Your task to perform on an android device: Do I have any events this weekend? Image 0: 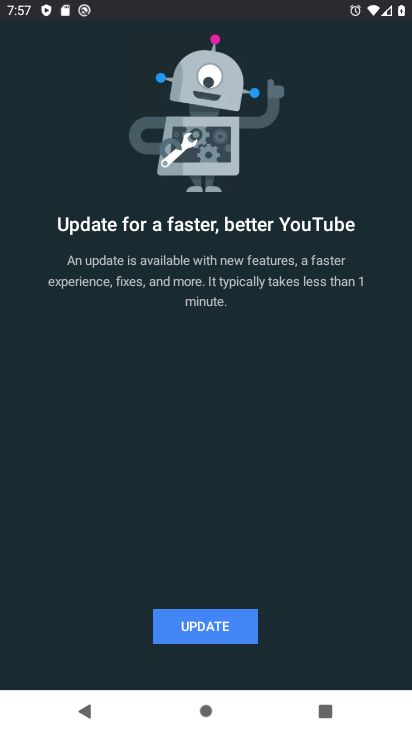
Step 0: press back button
Your task to perform on an android device: Do I have any events this weekend? Image 1: 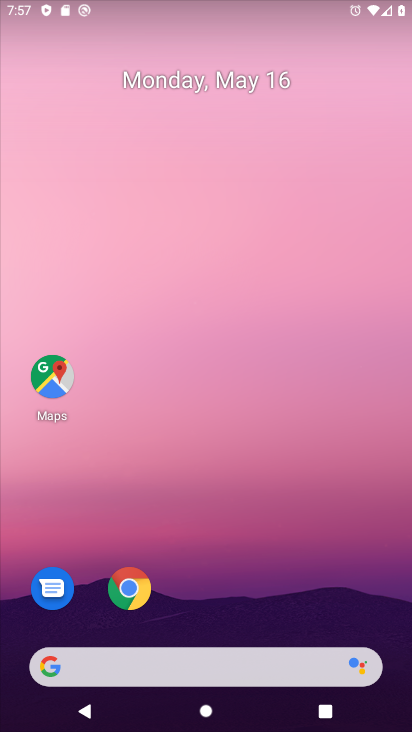
Step 1: drag from (323, 725) to (89, 76)
Your task to perform on an android device: Do I have any events this weekend? Image 2: 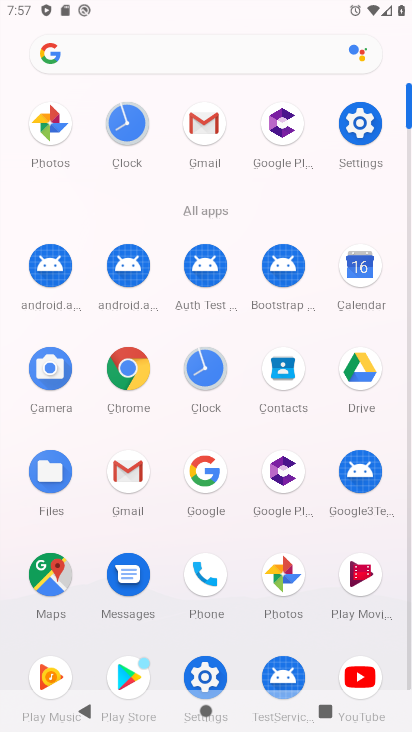
Step 2: click (362, 271)
Your task to perform on an android device: Do I have any events this weekend? Image 3: 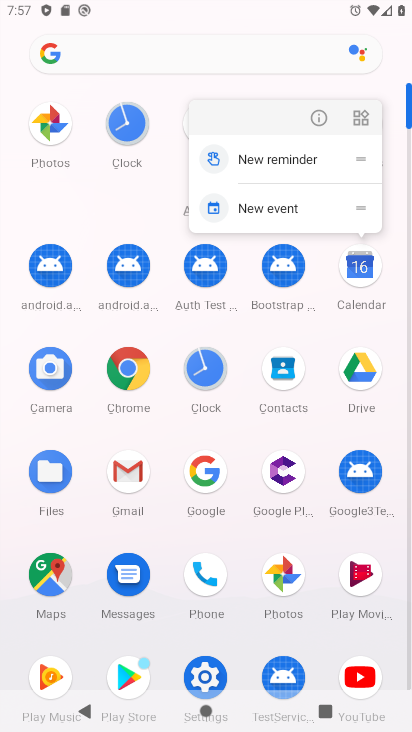
Step 3: click (357, 272)
Your task to perform on an android device: Do I have any events this weekend? Image 4: 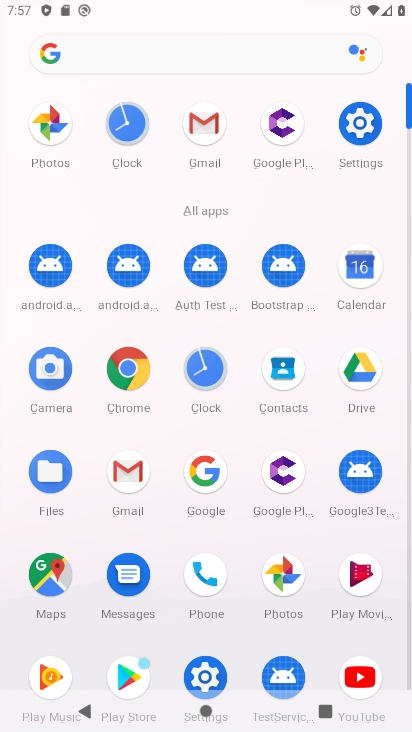
Step 4: click (357, 272)
Your task to perform on an android device: Do I have any events this weekend? Image 5: 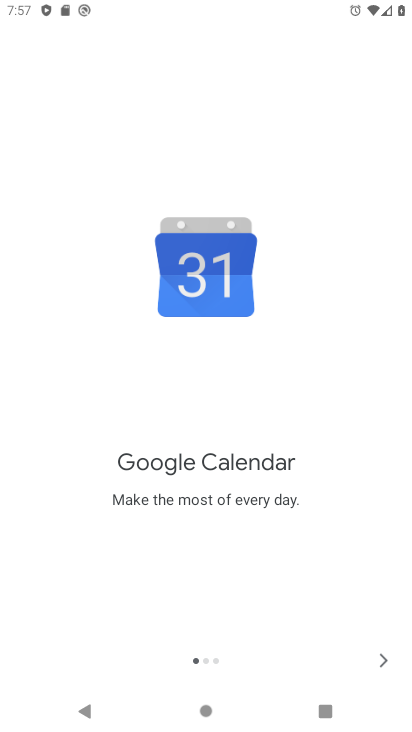
Step 5: click (381, 662)
Your task to perform on an android device: Do I have any events this weekend? Image 6: 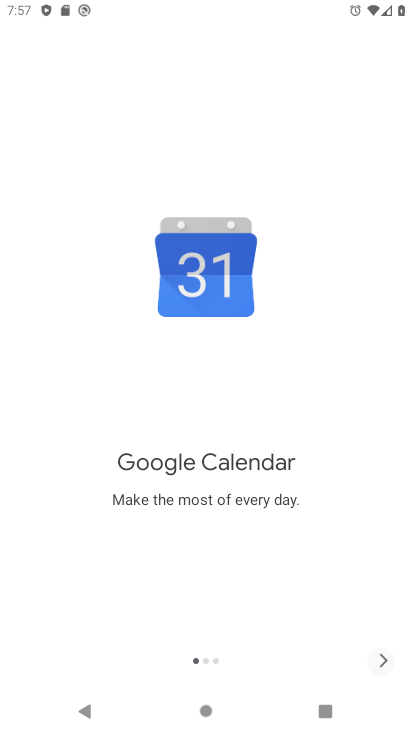
Step 6: click (381, 662)
Your task to perform on an android device: Do I have any events this weekend? Image 7: 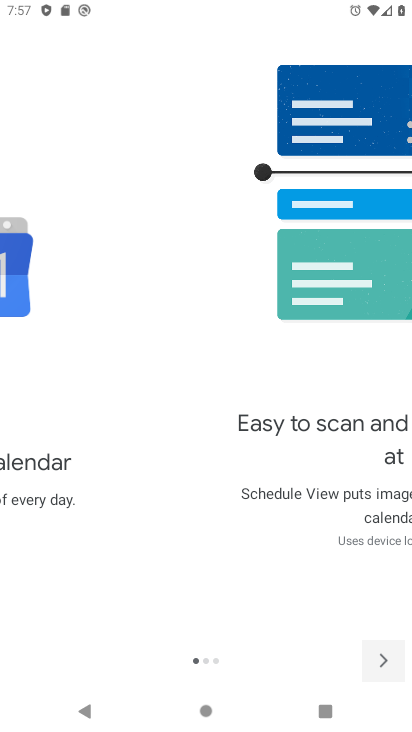
Step 7: click (381, 662)
Your task to perform on an android device: Do I have any events this weekend? Image 8: 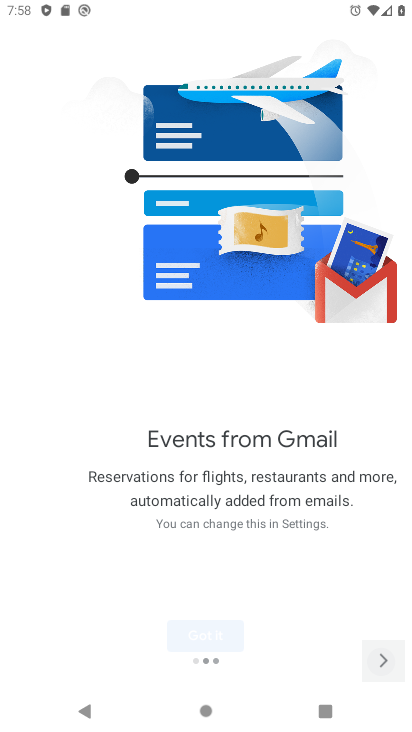
Step 8: click (381, 662)
Your task to perform on an android device: Do I have any events this weekend? Image 9: 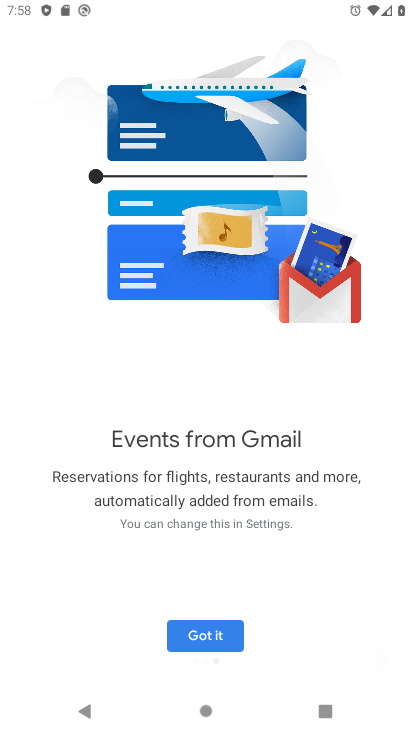
Step 9: click (381, 662)
Your task to perform on an android device: Do I have any events this weekend? Image 10: 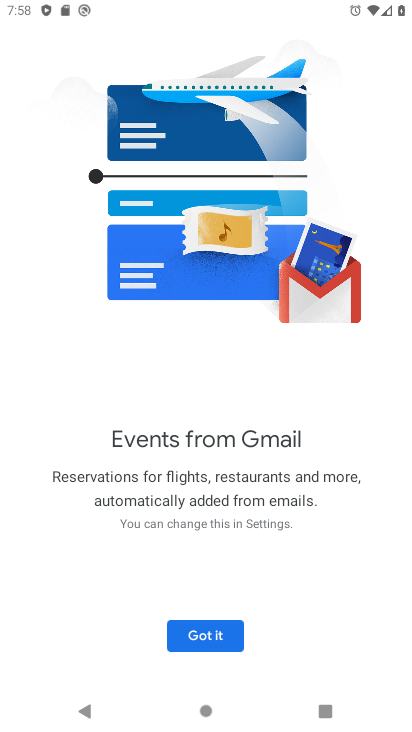
Step 10: click (381, 662)
Your task to perform on an android device: Do I have any events this weekend? Image 11: 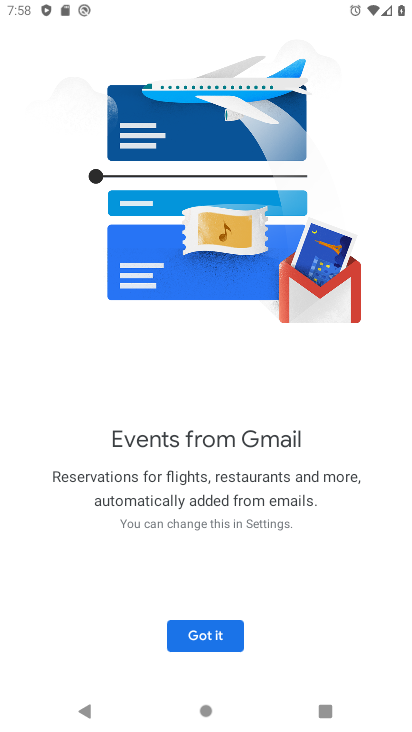
Step 11: click (208, 626)
Your task to perform on an android device: Do I have any events this weekend? Image 12: 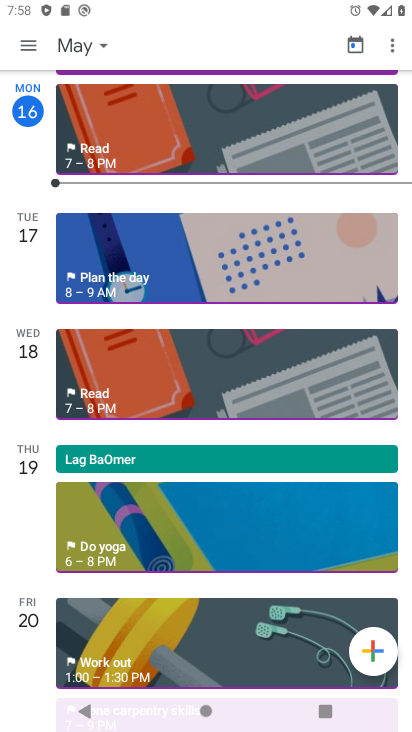
Step 12: drag from (128, 658) to (51, 305)
Your task to perform on an android device: Do I have any events this weekend? Image 13: 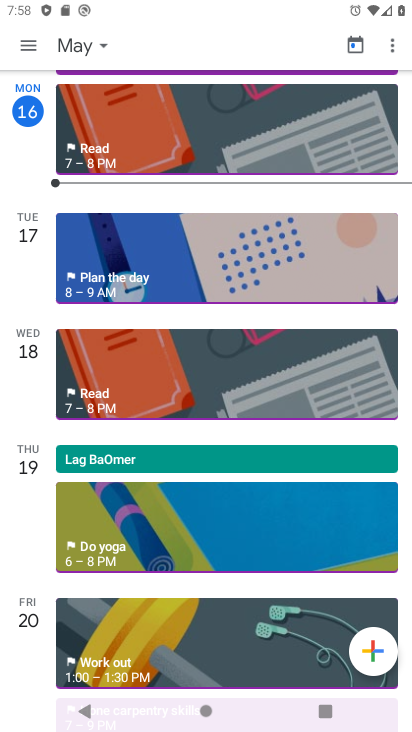
Step 13: drag from (134, 655) to (108, 107)
Your task to perform on an android device: Do I have any events this weekend? Image 14: 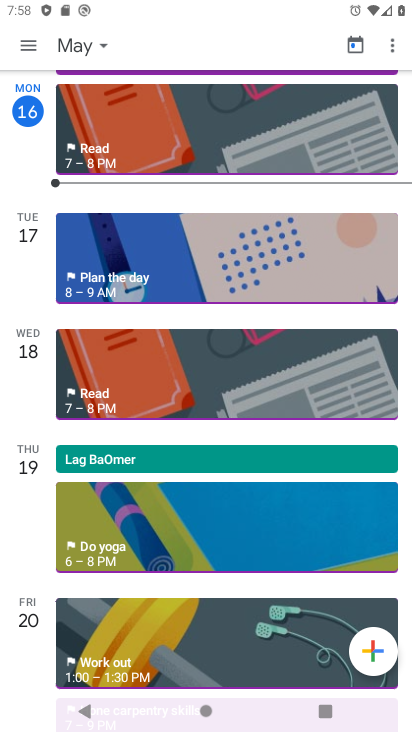
Step 14: drag from (147, 424) to (121, 89)
Your task to perform on an android device: Do I have any events this weekend? Image 15: 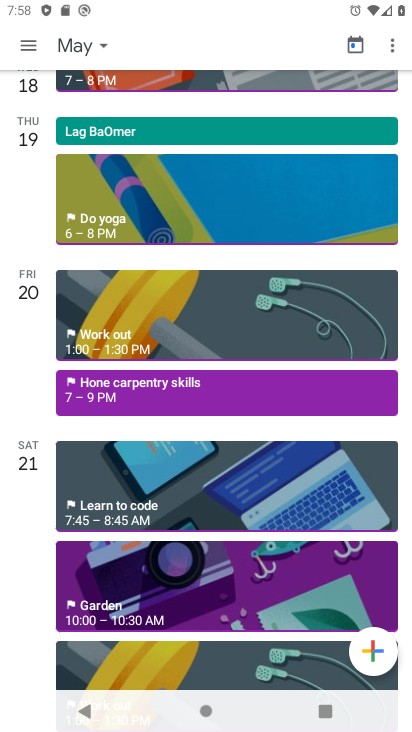
Step 15: drag from (151, 498) to (157, 212)
Your task to perform on an android device: Do I have any events this weekend? Image 16: 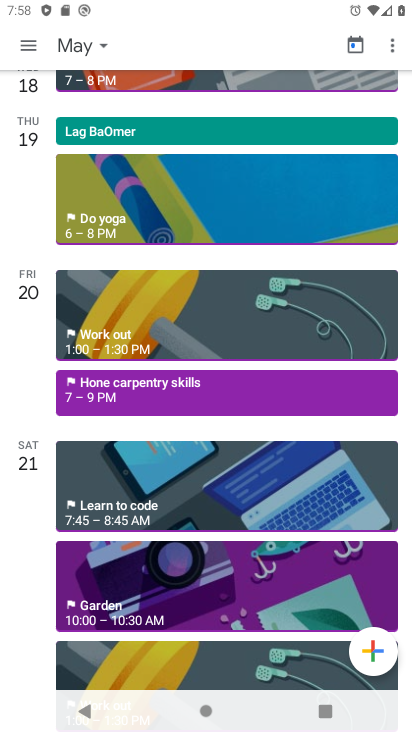
Step 16: click (115, 507)
Your task to perform on an android device: Do I have any events this weekend? Image 17: 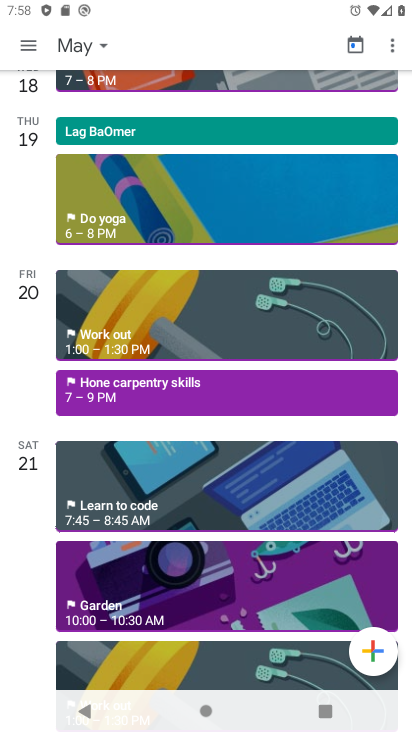
Step 17: click (117, 507)
Your task to perform on an android device: Do I have any events this weekend? Image 18: 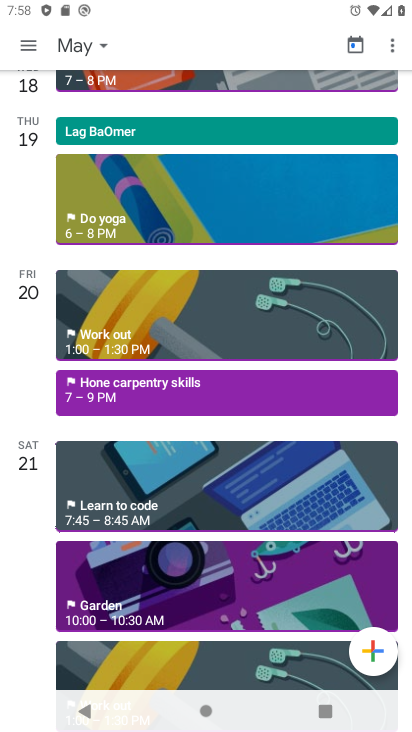
Step 18: click (117, 507)
Your task to perform on an android device: Do I have any events this weekend? Image 19: 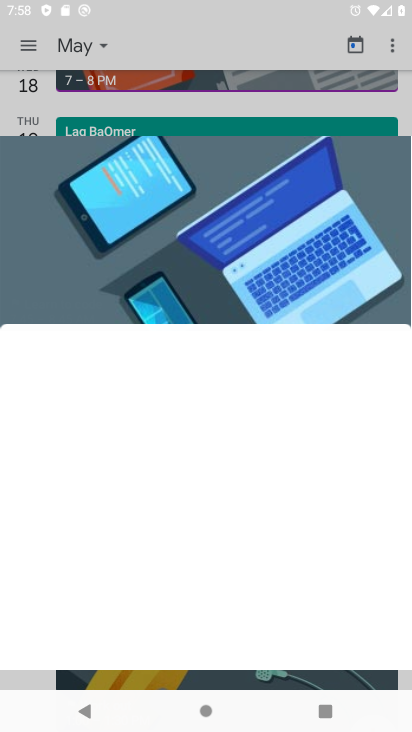
Step 19: click (118, 505)
Your task to perform on an android device: Do I have any events this weekend? Image 20: 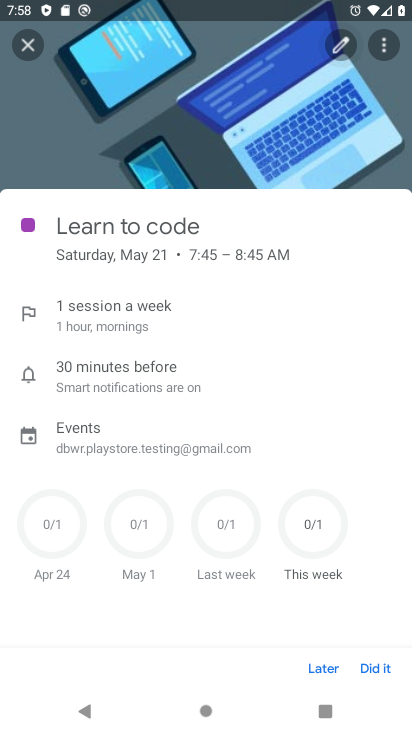
Step 20: click (118, 505)
Your task to perform on an android device: Do I have any events this weekend? Image 21: 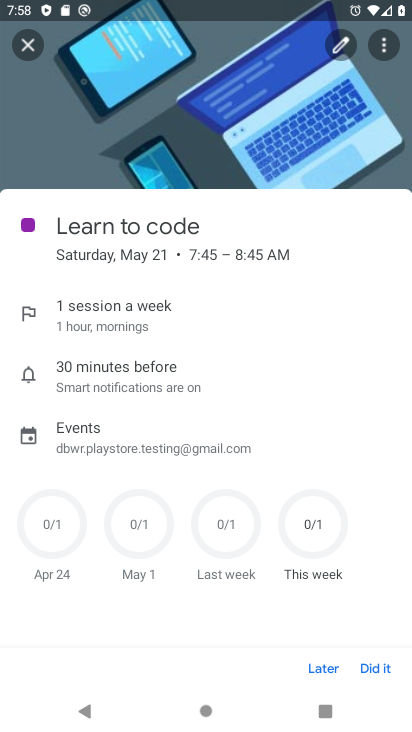
Step 21: task complete